Your task to perform on an android device: Go to location settings Image 0: 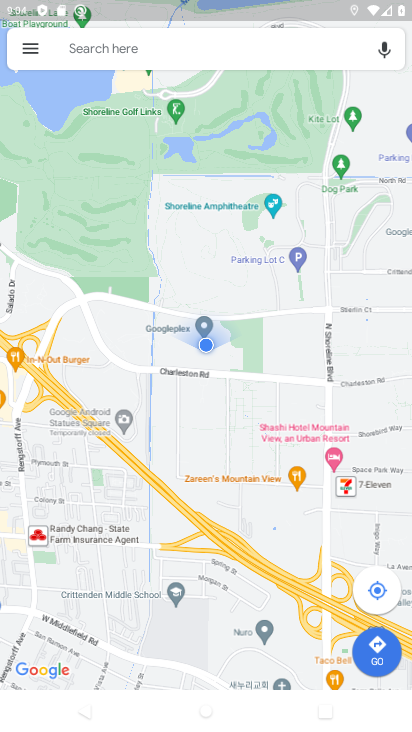
Step 0: press home button
Your task to perform on an android device: Go to location settings Image 1: 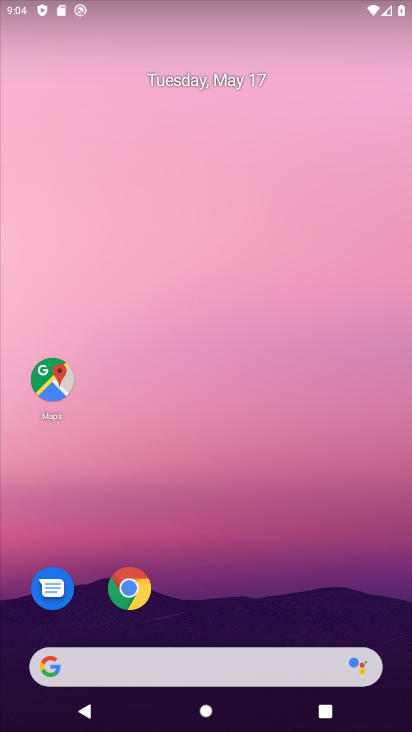
Step 1: drag from (232, 559) to (249, 184)
Your task to perform on an android device: Go to location settings Image 2: 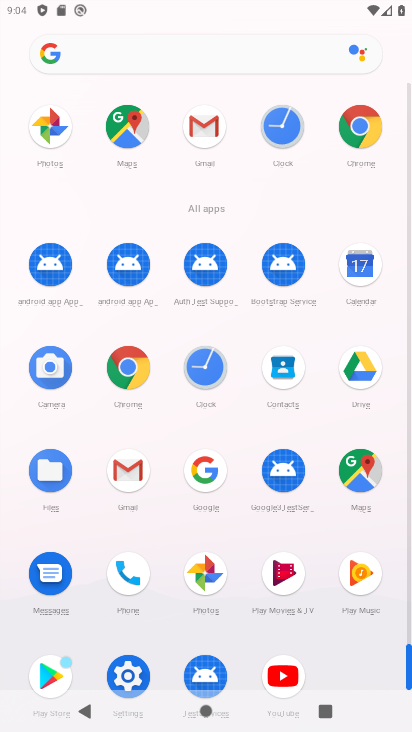
Step 2: click (129, 668)
Your task to perform on an android device: Go to location settings Image 3: 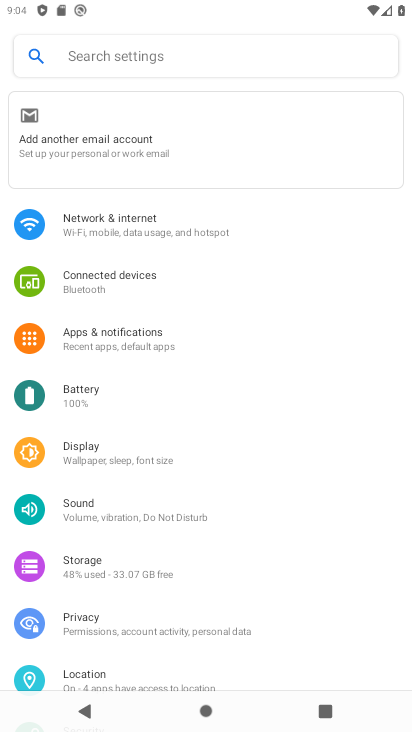
Step 3: click (106, 665)
Your task to perform on an android device: Go to location settings Image 4: 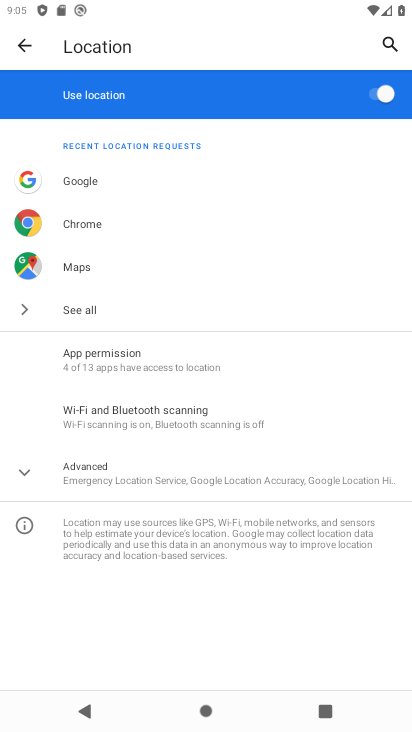
Step 4: task complete